Your task to perform on an android device: Open sound settings Image 0: 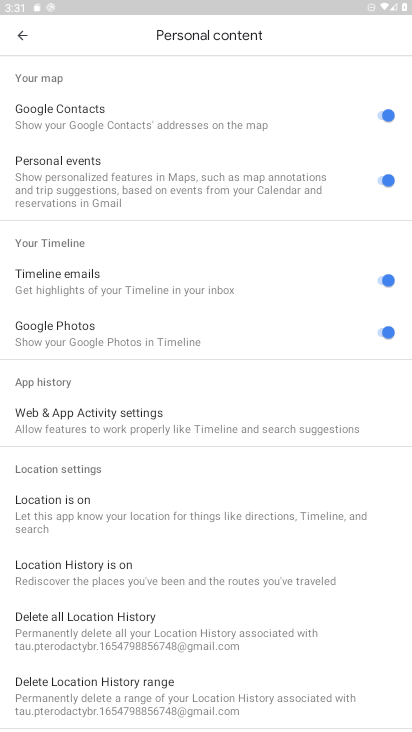
Step 0: press home button
Your task to perform on an android device: Open sound settings Image 1: 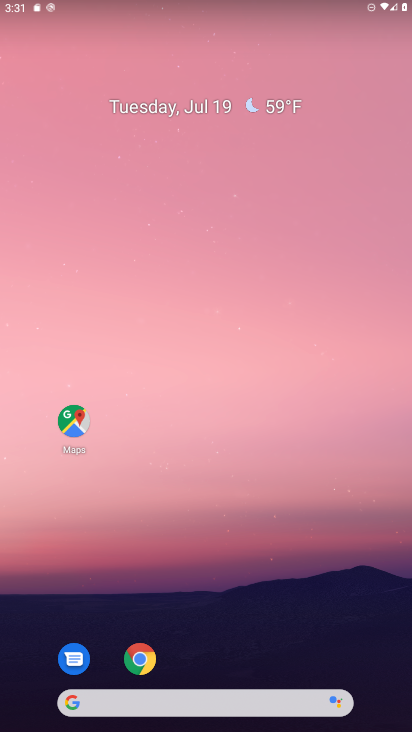
Step 1: drag from (230, 698) to (400, 17)
Your task to perform on an android device: Open sound settings Image 2: 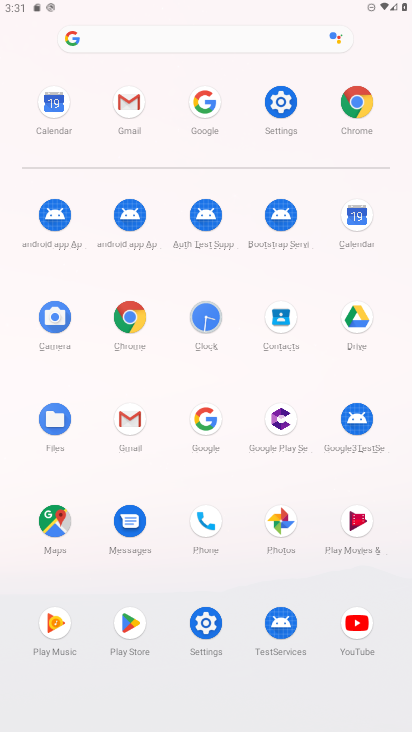
Step 2: click (283, 101)
Your task to perform on an android device: Open sound settings Image 3: 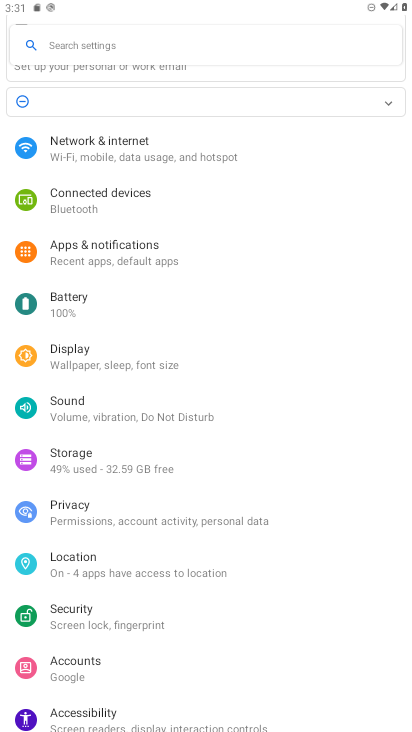
Step 3: click (127, 415)
Your task to perform on an android device: Open sound settings Image 4: 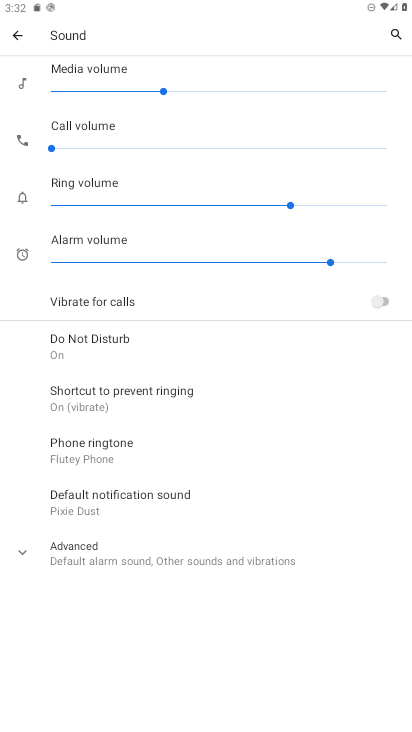
Step 4: task complete